Your task to perform on an android device: check out phone information Image 0: 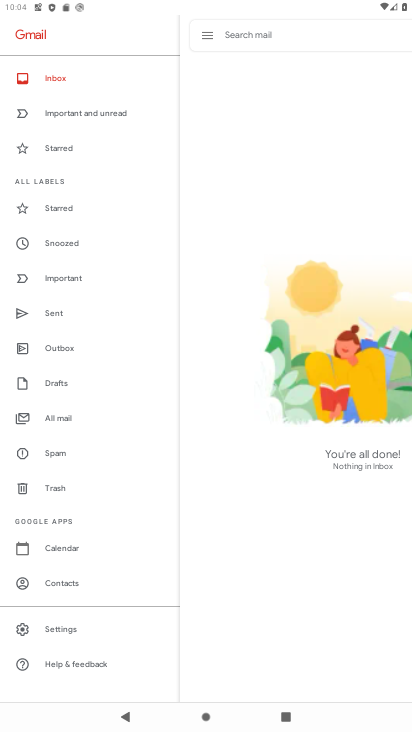
Step 0: press home button
Your task to perform on an android device: check out phone information Image 1: 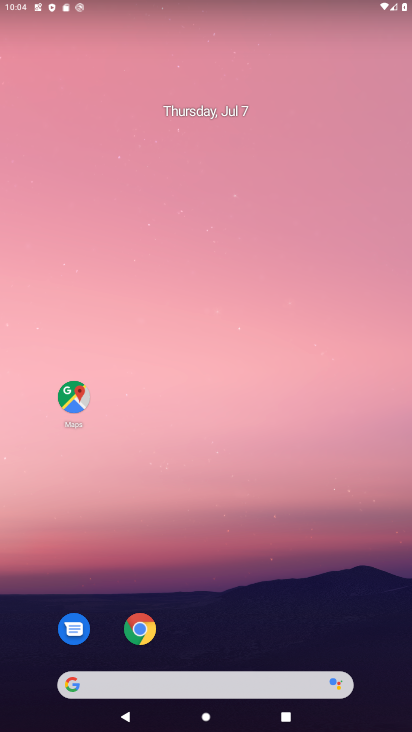
Step 1: drag from (202, 647) to (133, 126)
Your task to perform on an android device: check out phone information Image 2: 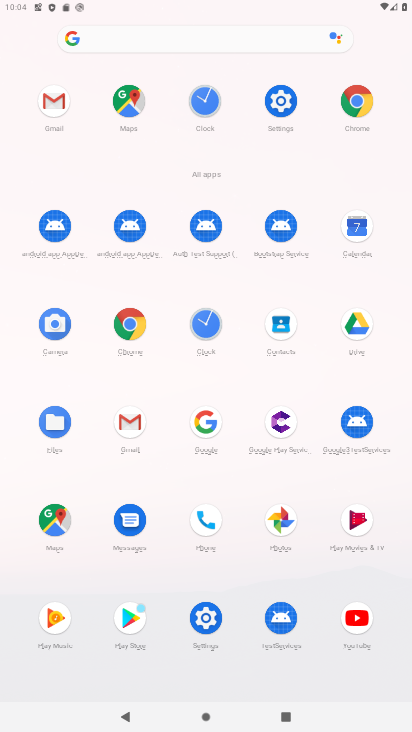
Step 2: click (279, 106)
Your task to perform on an android device: check out phone information Image 3: 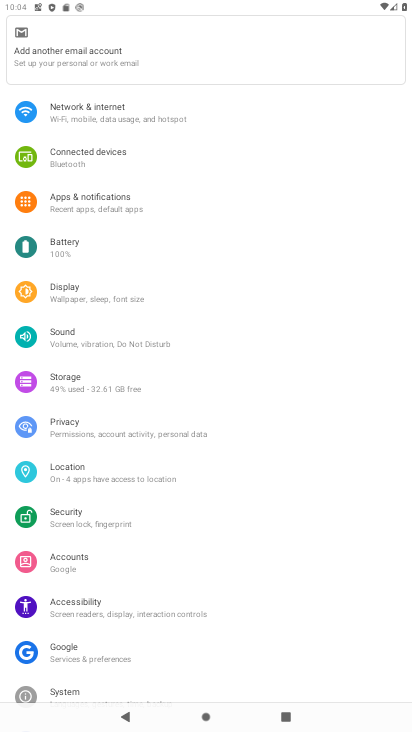
Step 3: task complete